Your task to perform on an android device: Search for cool wooden wall art on Etsy. Image 0: 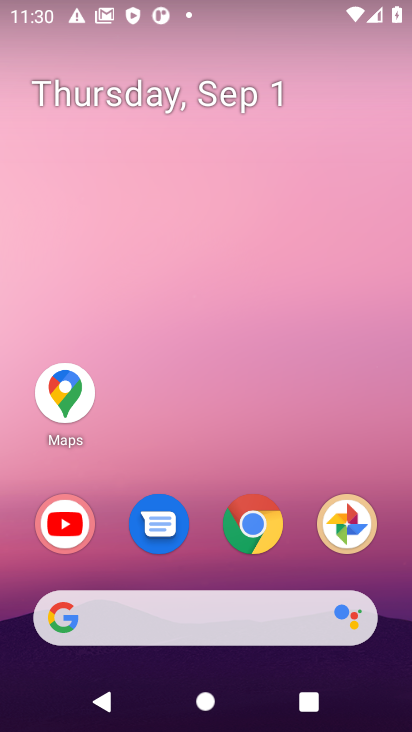
Step 0: click (249, 531)
Your task to perform on an android device: Search for cool wooden wall art on Etsy. Image 1: 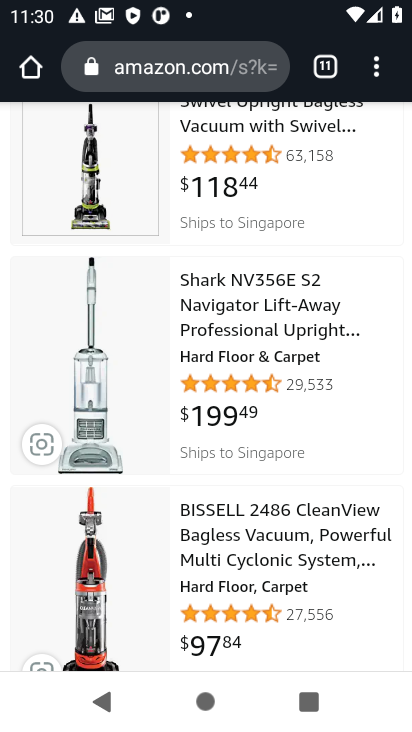
Step 1: click (329, 73)
Your task to perform on an android device: Search for cool wooden wall art on Etsy. Image 2: 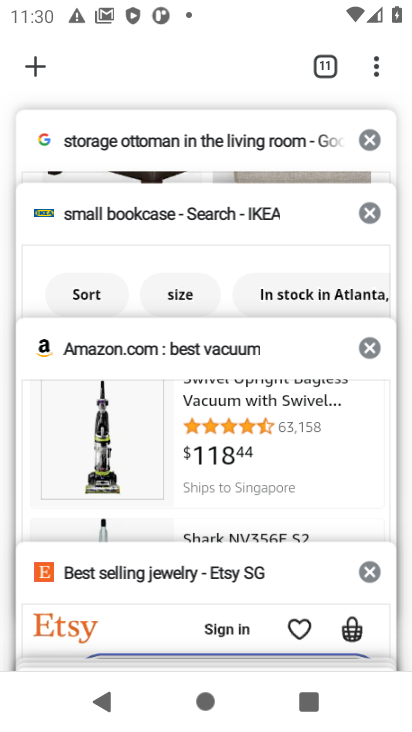
Step 2: click (222, 596)
Your task to perform on an android device: Search for cool wooden wall art on Etsy. Image 3: 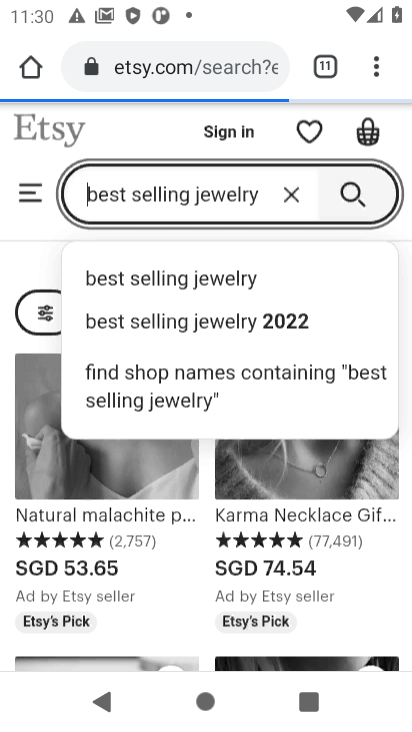
Step 3: click (297, 192)
Your task to perform on an android device: Search for cool wooden wall art on Etsy. Image 4: 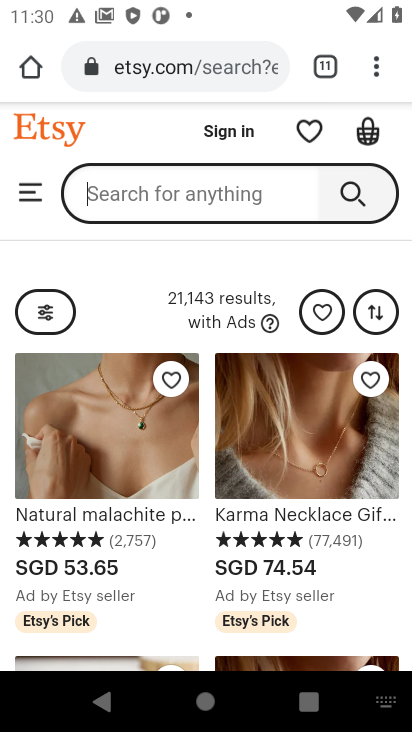
Step 4: click (216, 195)
Your task to perform on an android device: Search for cool wooden wall art on Etsy. Image 5: 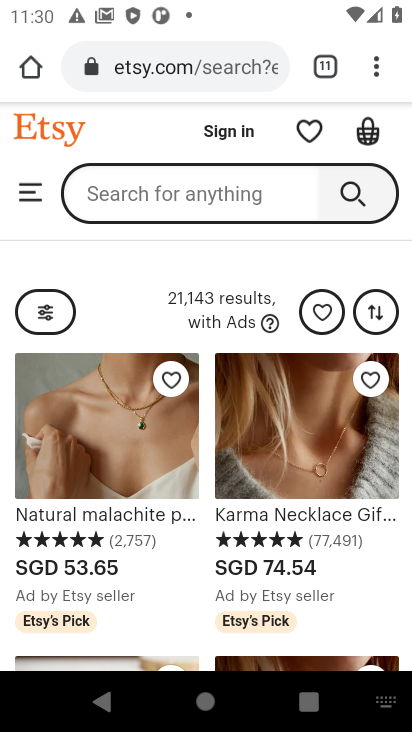
Step 5: type "cool wooden wall art"
Your task to perform on an android device: Search for cool wooden wall art on Etsy. Image 6: 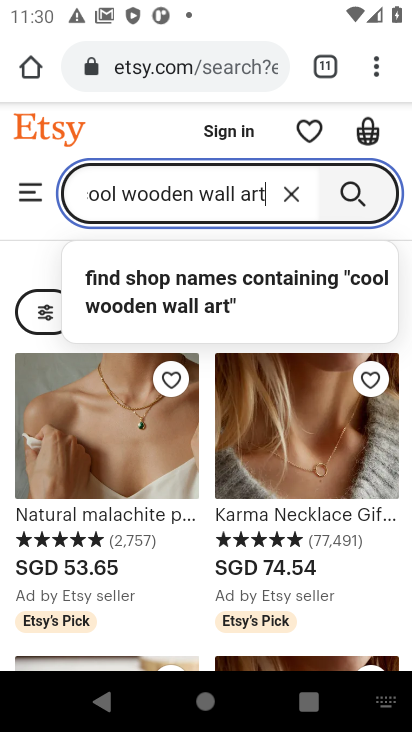
Step 6: click (348, 193)
Your task to perform on an android device: Search for cool wooden wall art on Etsy. Image 7: 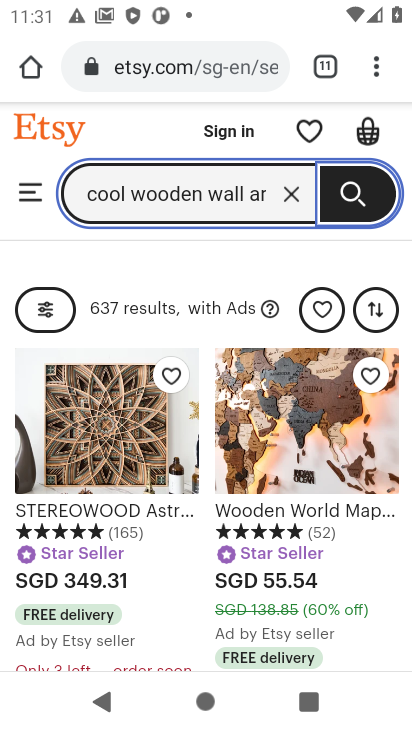
Step 7: task complete